Your task to perform on an android device: Show me recent news Image 0: 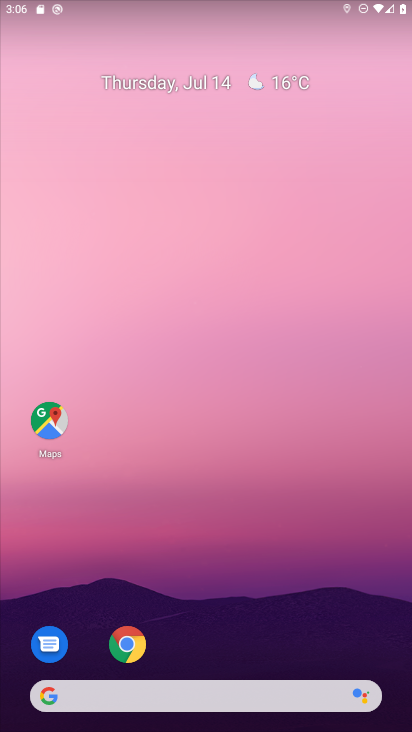
Step 0: drag from (188, 653) to (169, 205)
Your task to perform on an android device: Show me recent news Image 1: 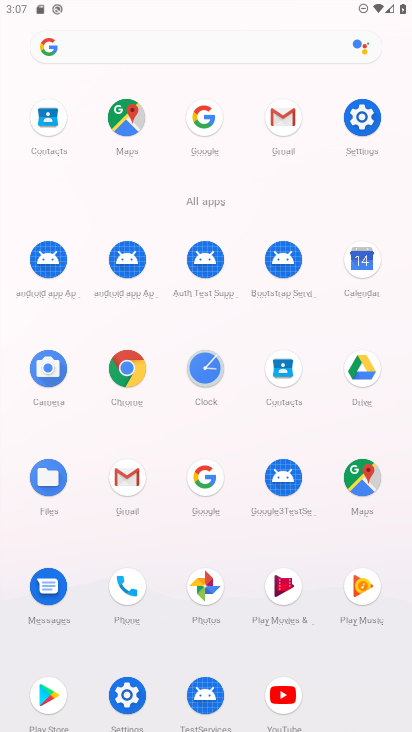
Step 1: click (195, 490)
Your task to perform on an android device: Show me recent news Image 2: 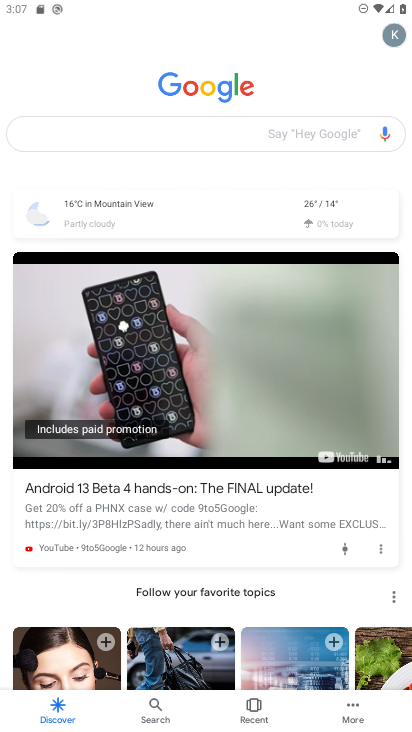
Step 2: click (115, 128)
Your task to perform on an android device: Show me recent news Image 3: 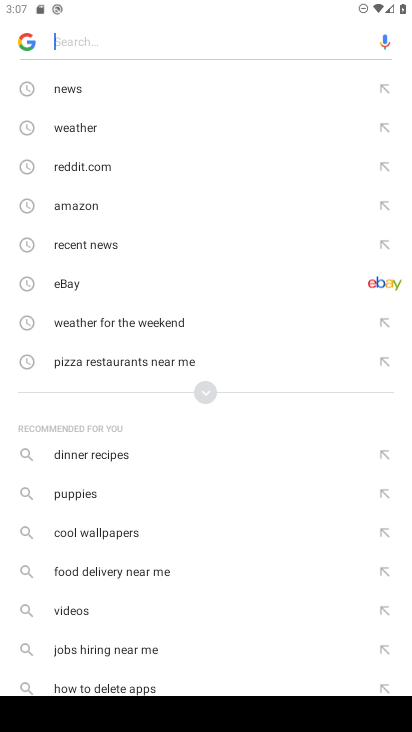
Step 3: click (90, 88)
Your task to perform on an android device: Show me recent news Image 4: 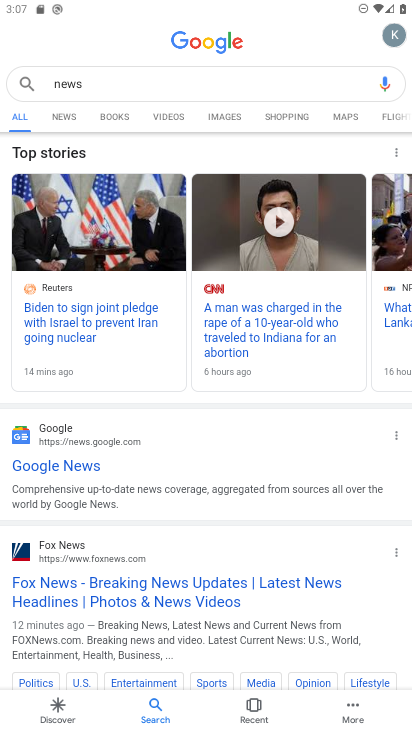
Step 4: click (80, 115)
Your task to perform on an android device: Show me recent news Image 5: 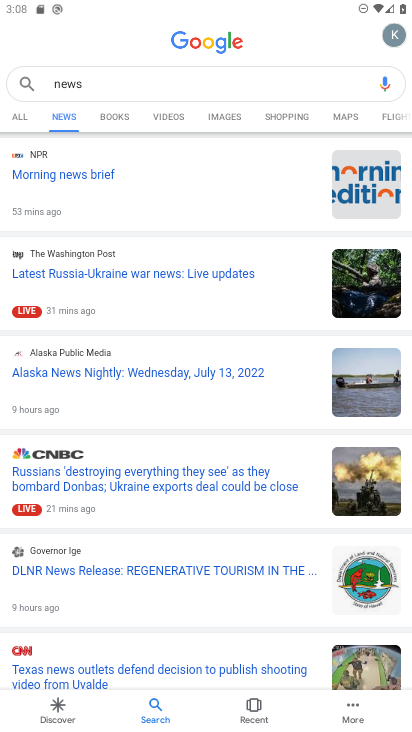
Step 5: task complete